Your task to perform on an android device: turn off location Image 0: 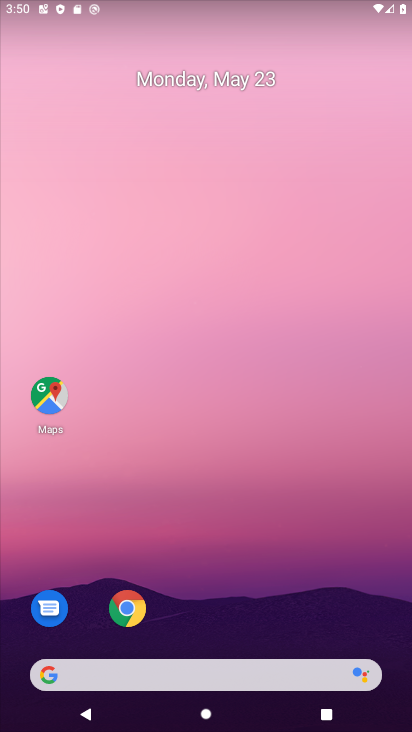
Step 0: drag from (271, 612) to (184, 126)
Your task to perform on an android device: turn off location Image 1: 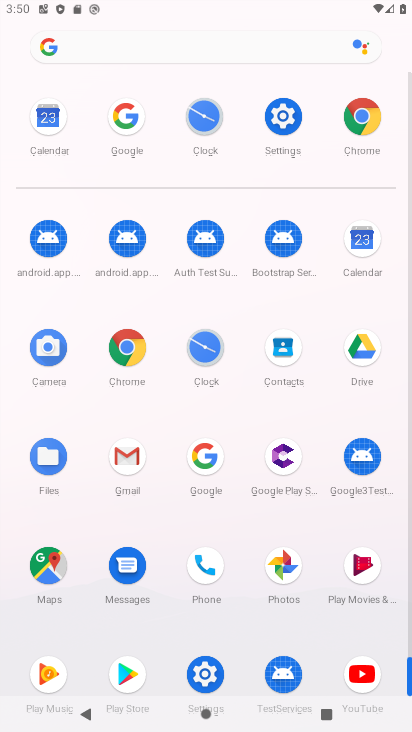
Step 1: click (208, 673)
Your task to perform on an android device: turn off location Image 2: 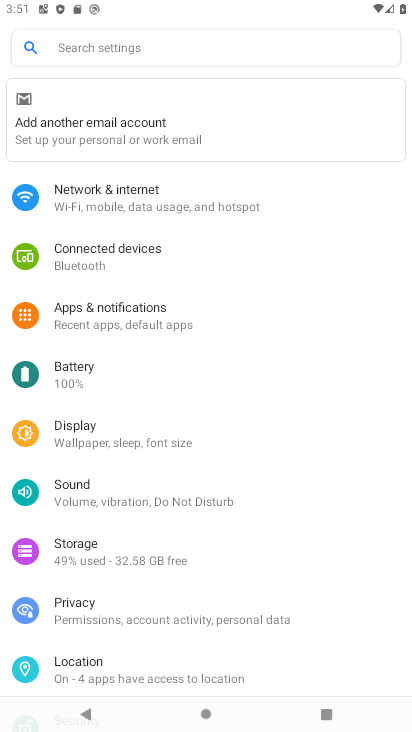
Step 2: click (200, 674)
Your task to perform on an android device: turn off location Image 3: 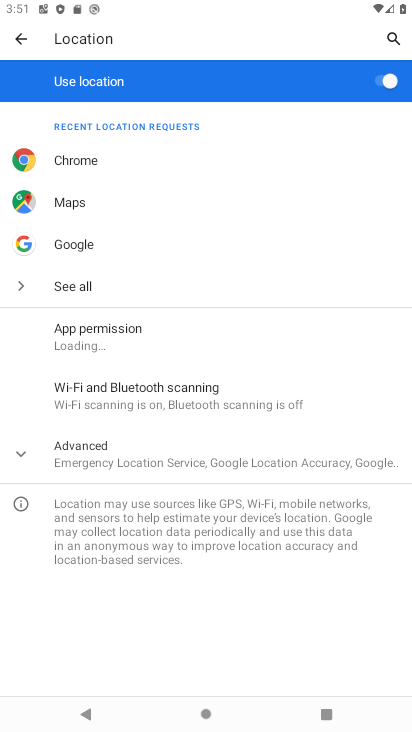
Step 3: click (375, 83)
Your task to perform on an android device: turn off location Image 4: 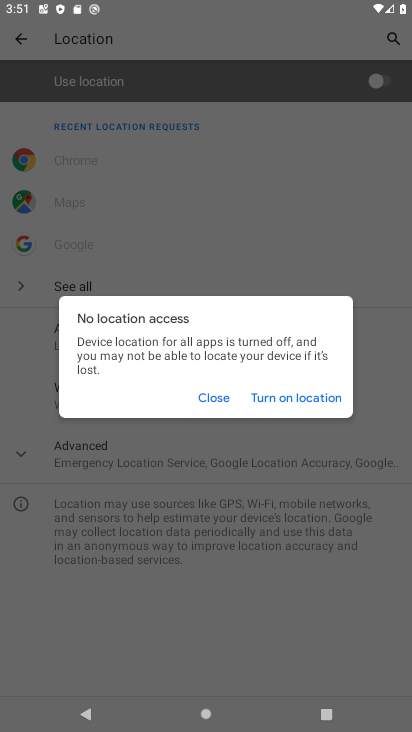
Step 4: click (206, 404)
Your task to perform on an android device: turn off location Image 5: 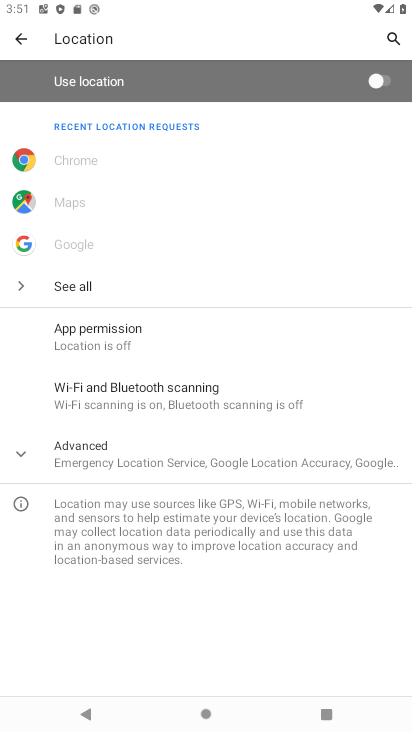
Step 5: task complete